Your task to perform on an android device: snooze an email in the gmail app Image 0: 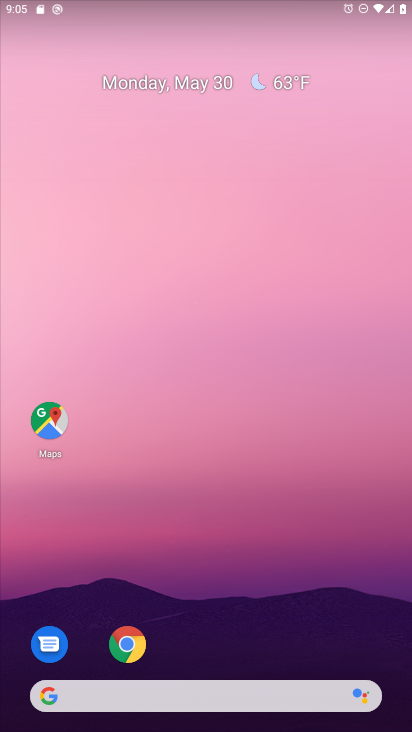
Step 0: drag from (233, 640) to (217, 69)
Your task to perform on an android device: snooze an email in the gmail app Image 1: 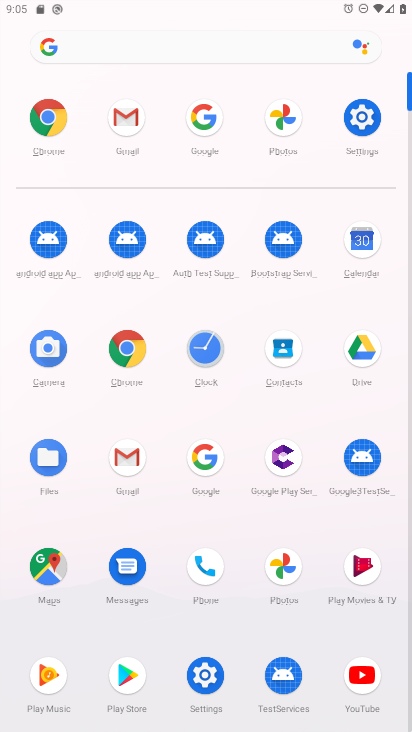
Step 1: click (125, 110)
Your task to perform on an android device: snooze an email in the gmail app Image 2: 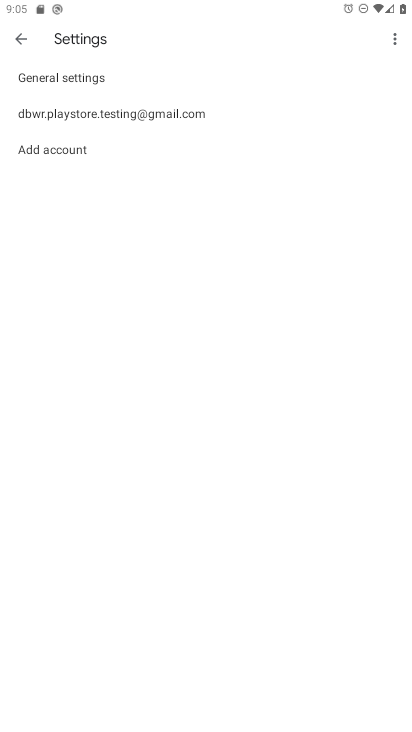
Step 2: click (137, 113)
Your task to perform on an android device: snooze an email in the gmail app Image 3: 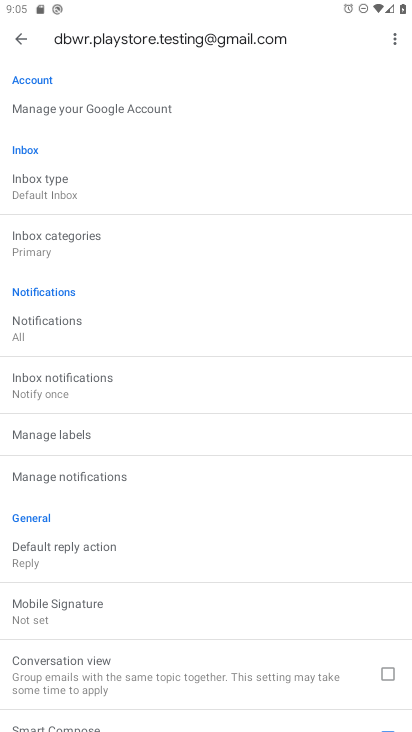
Step 3: task complete